Your task to perform on an android device: turn on improve location accuracy Image 0: 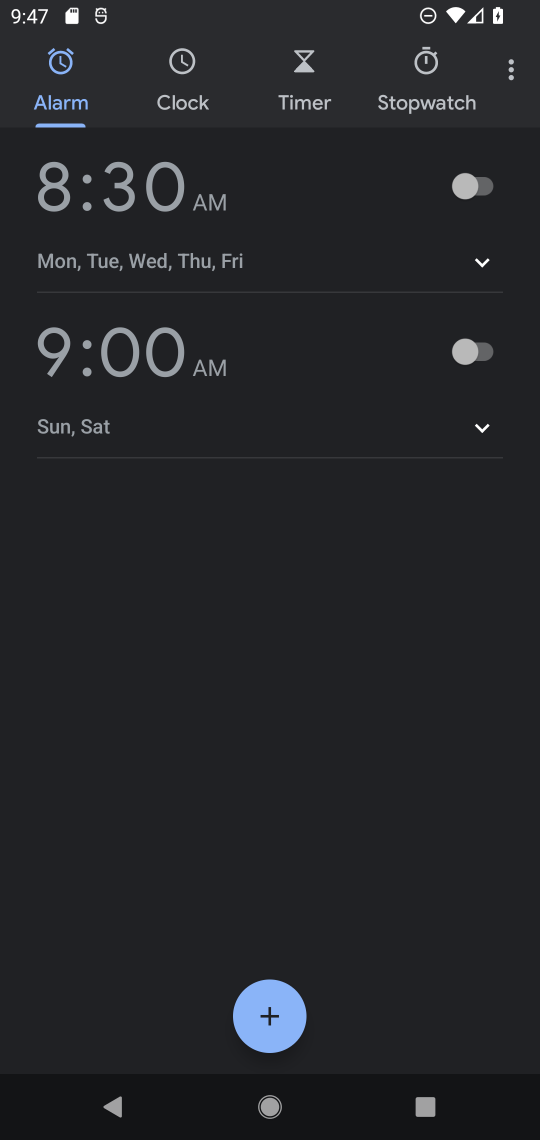
Step 0: press home button
Your task to perform on an android device: turn on improve location accuracy Image 1: 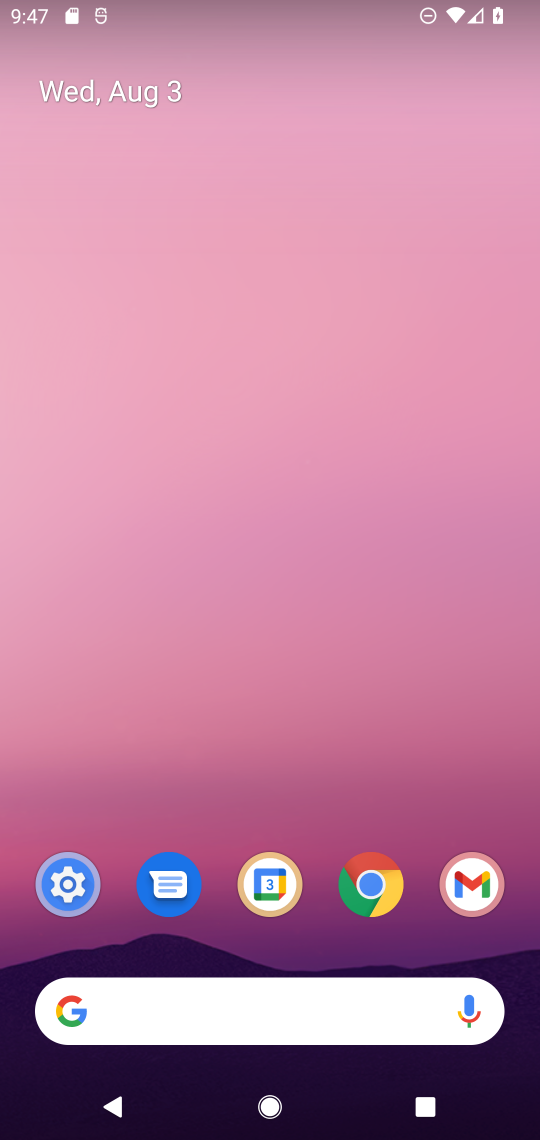
Step 1: click (396, 866)
Your task to perform on an android device: turn on improve location accuracy Image 2: 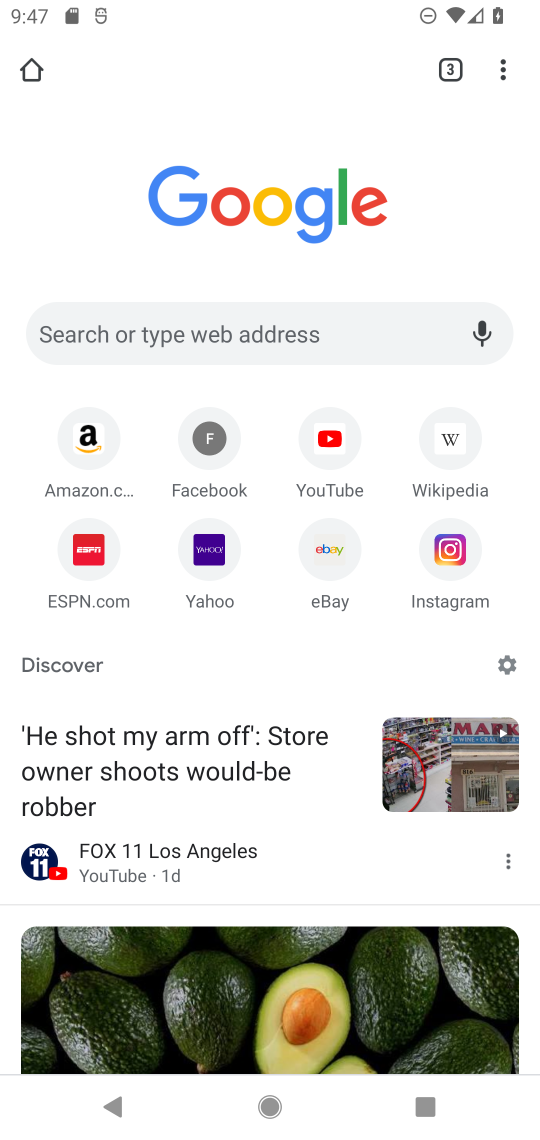
Step 2: click (500, 73)
Your task to perform on an android device: turn on improve location accuracy Image 3: 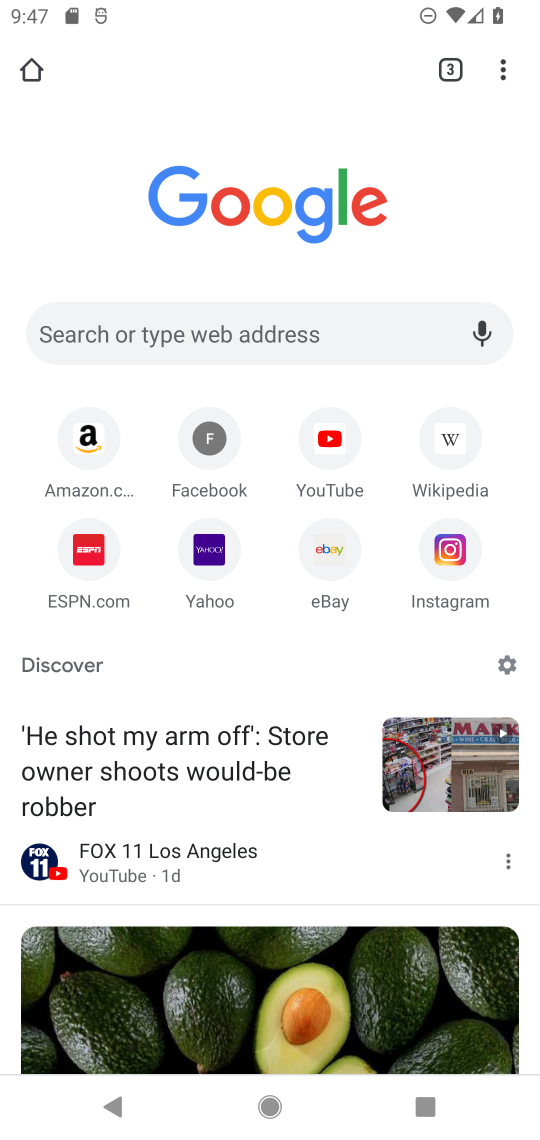
Step 3: click (505, 72)
Your task to perform on an android device: turn on improve location accuracy Image 4: 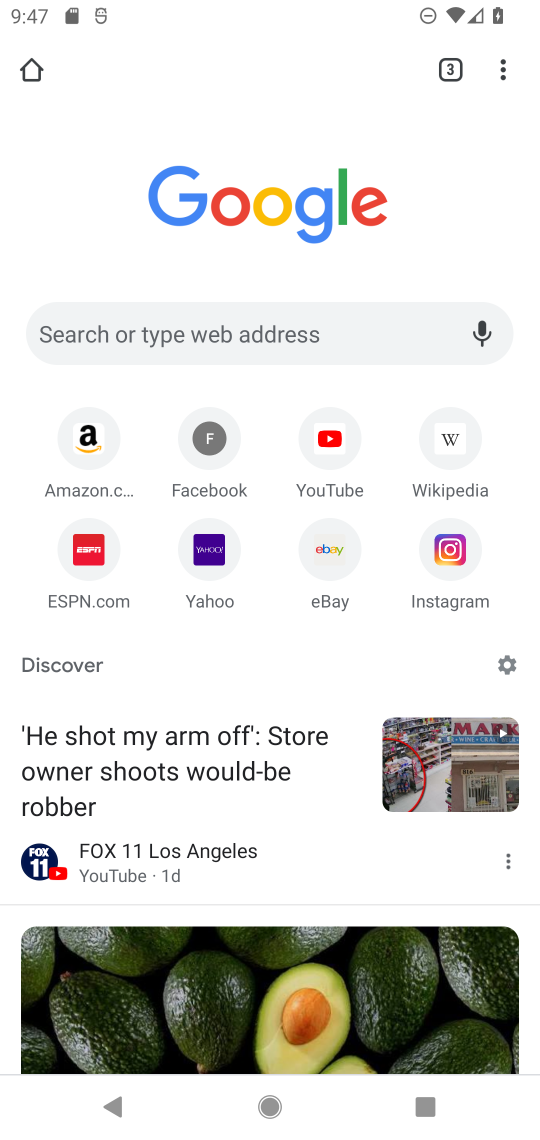
Step 4: click (494, 67)
Your task to perform on an android device: turn on improve location accuracy Image 5: 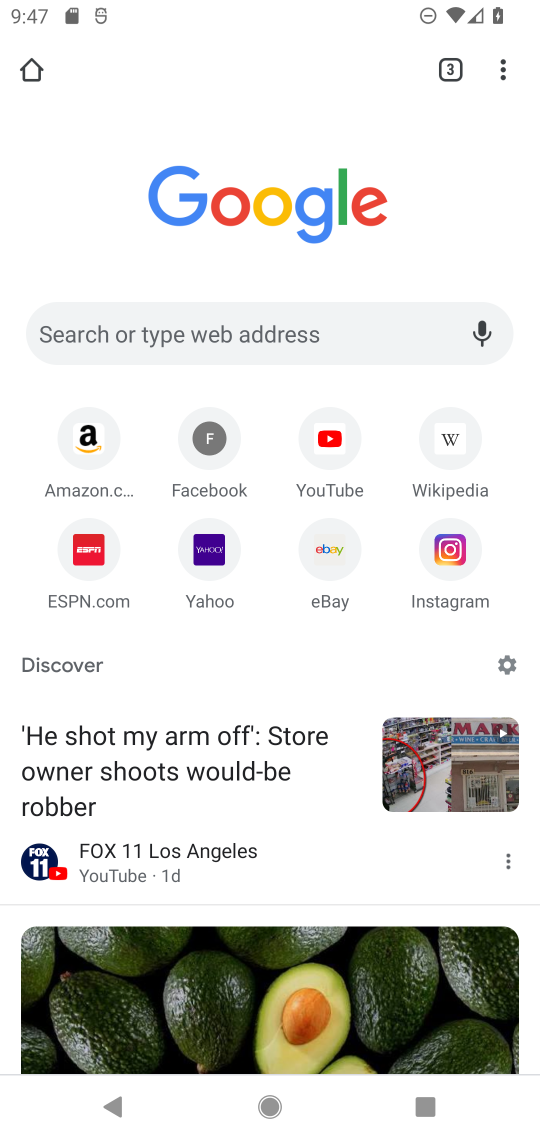
Step 5: click (509, 62)
Your task to perform on an android device: turn on improve location accuracy Image 6: 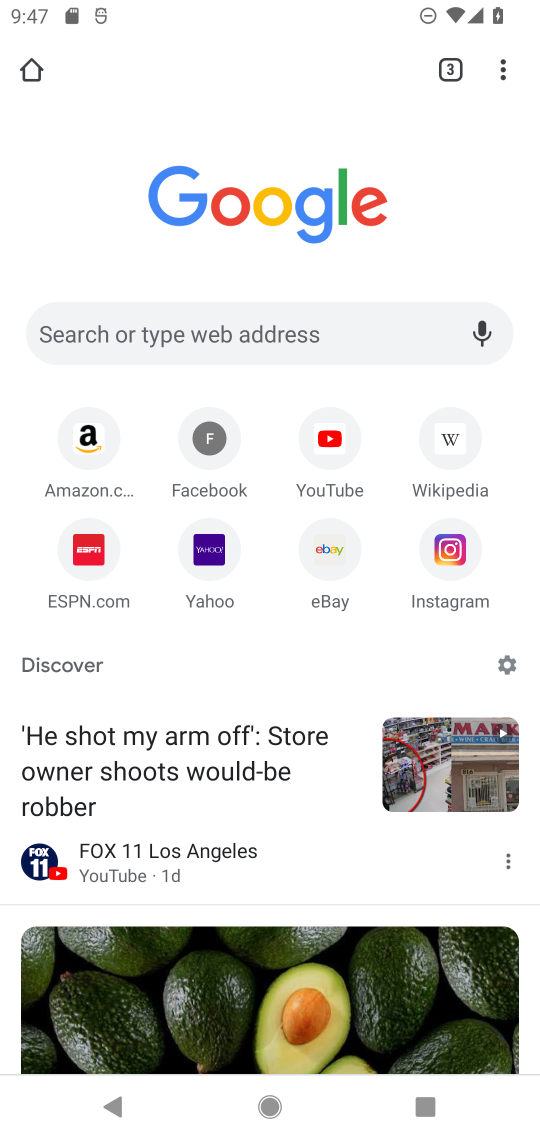
Step 6: click (509, 65)
Your task to perform on an android device: turn on improve location accuracy Image 7: 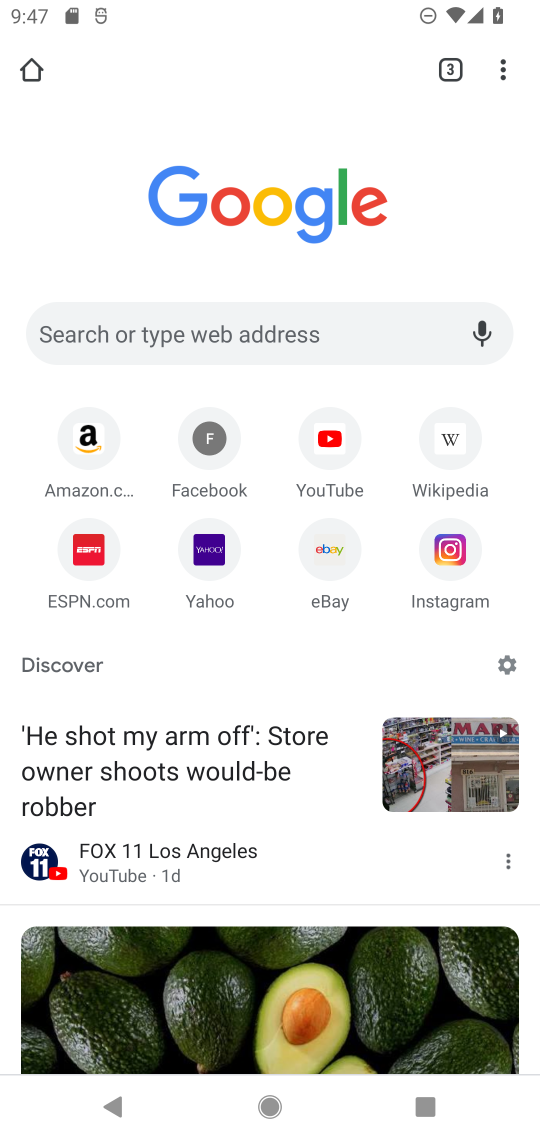
Step 7: task complete